Your task to perform on an android device: turn off data saver in the chrome app Image 0: 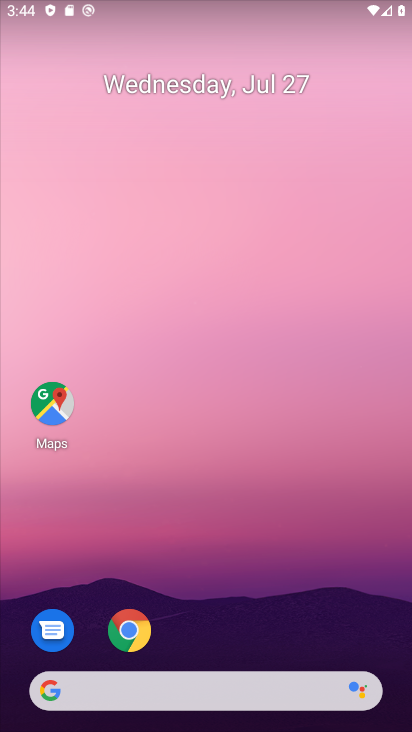
Step 0: click (126, 628)
Your task to perform on an android device: turn off data saver in the chrome app Image 1: 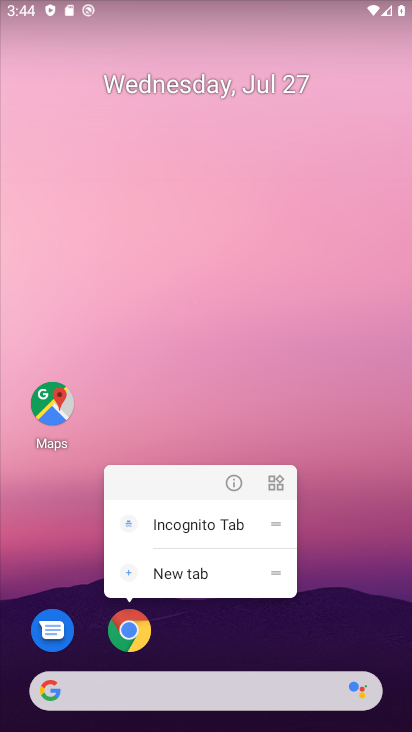
Step 1: click (125, 629)
Your task to perform on an android device: turn off data saver in the chrome app Image 2: 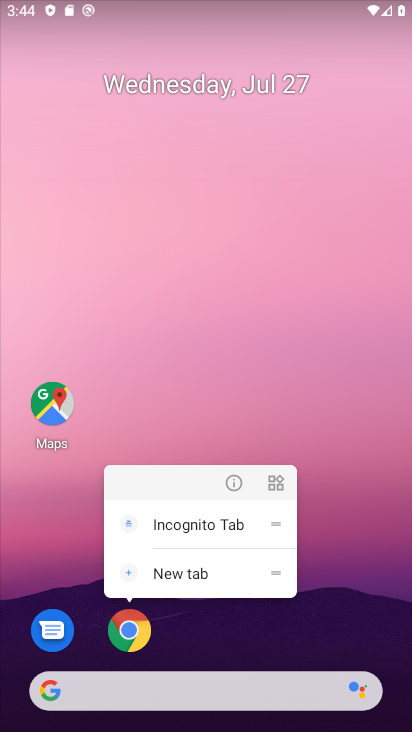
Step 2: click (129, 625)
Your task to perform on an android device: turn off data saver in the chrome app Image 3: 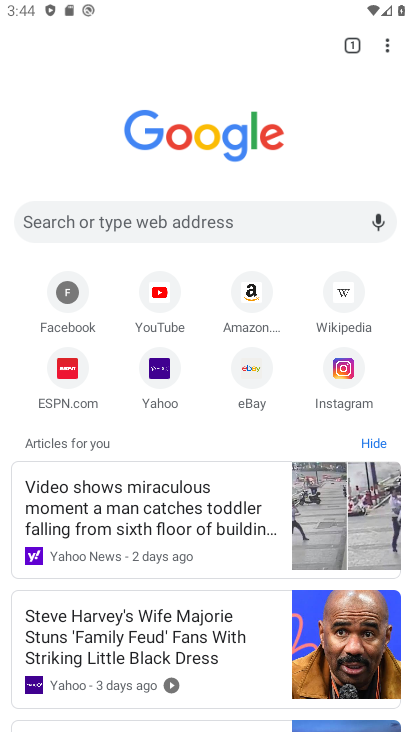
Step 3: click (384, 35)
Your task to perform on an android device: turn off data saver in the chrome app Image 4: 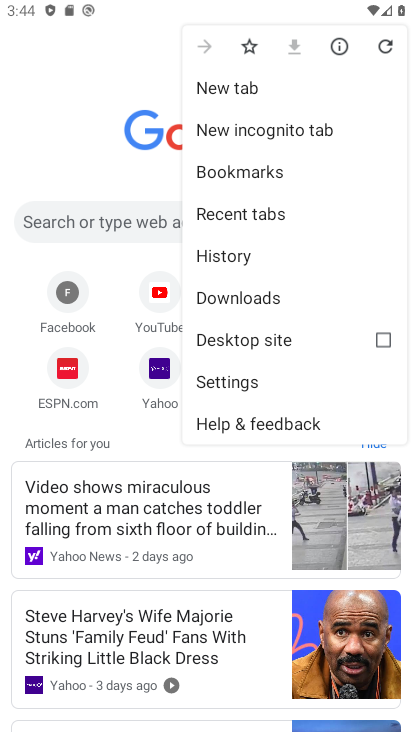
Step 4: click (267, 375)
Your task to perform on an android device: turn off data saver in the chrome app Image 5: 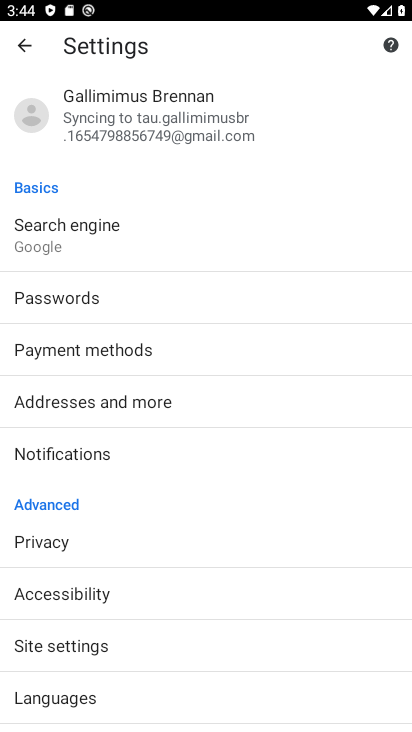
Step 5: drag from (140, 646) to (197, 154)
Your task to perform on an android device: turn off data saver in the chrome app Image 6: 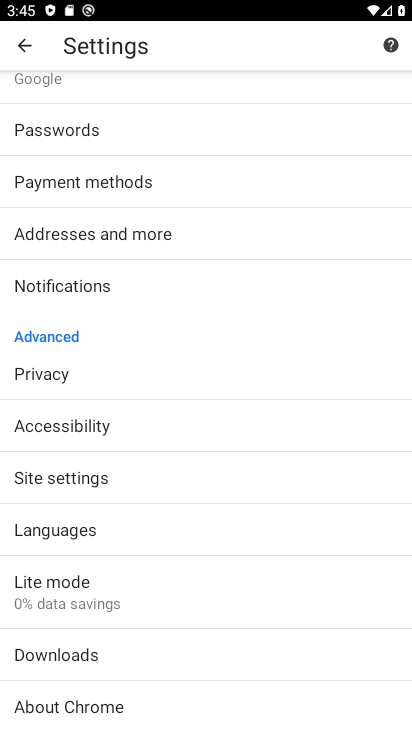
Step 6: drag from (145, 640) to (149, 265)
Your task to perform on an android device: turn off data saver in the chrome app Image 7: 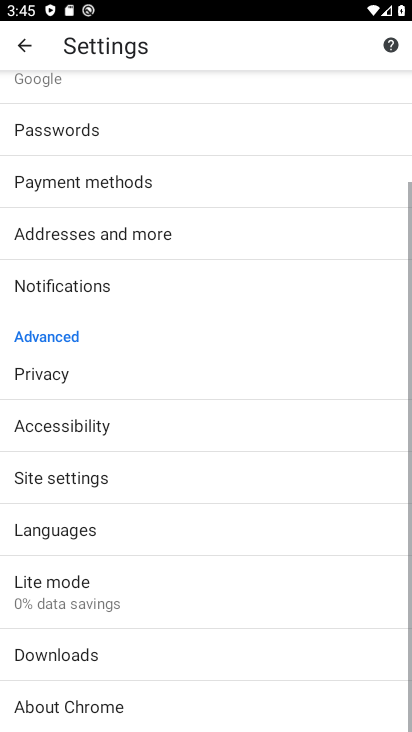
Step 7: click (100, 576)
Your task to perform on an android device: turn off data saver in the chrome app Image 8: 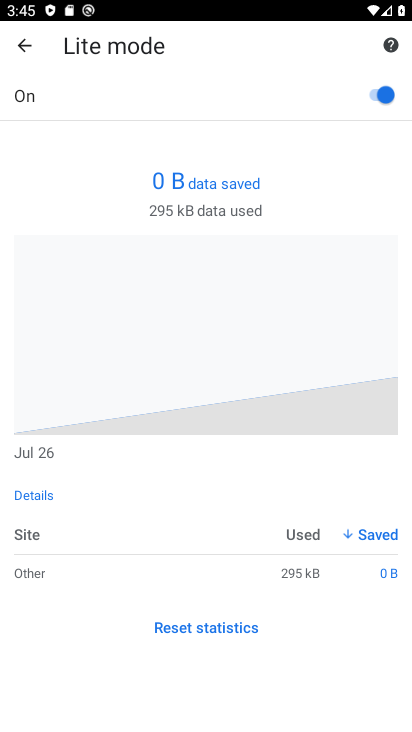
Step 8: click (379, 97)
Your task to perform on an android device: turn off data saver in the chrome app Image 9: 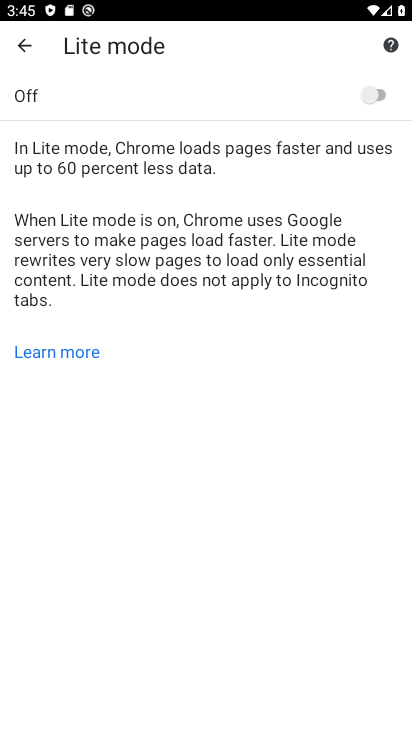
Step 9: task complete